Your task to perform on an android device: toggle improve location accuracy Image 0: 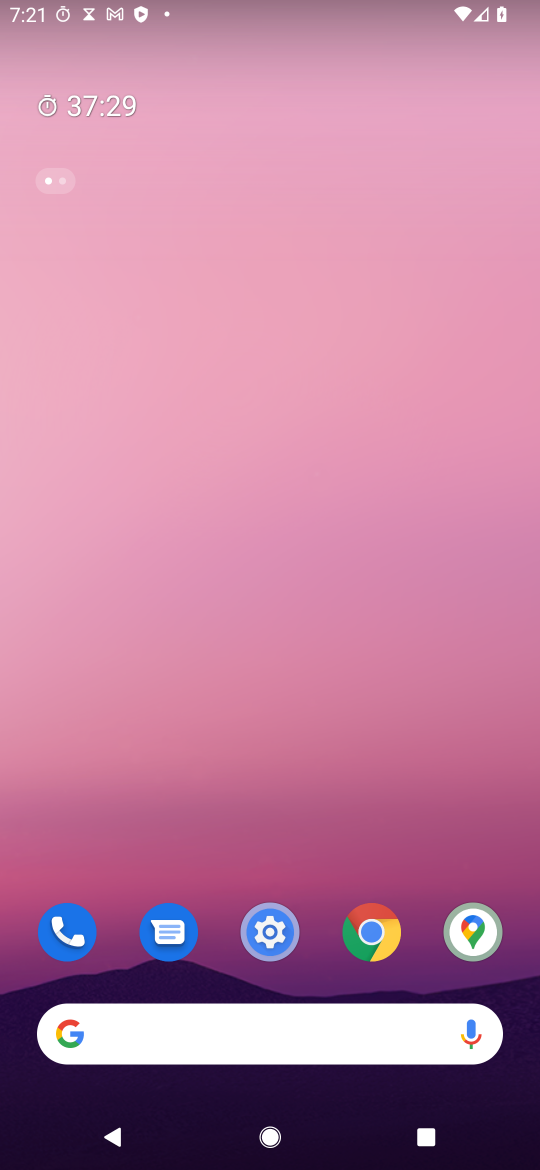
Step 0: drag from (386, 823) to (374, 22)
Your task to perform on an android device: toggle improve location accuracy Image 1: 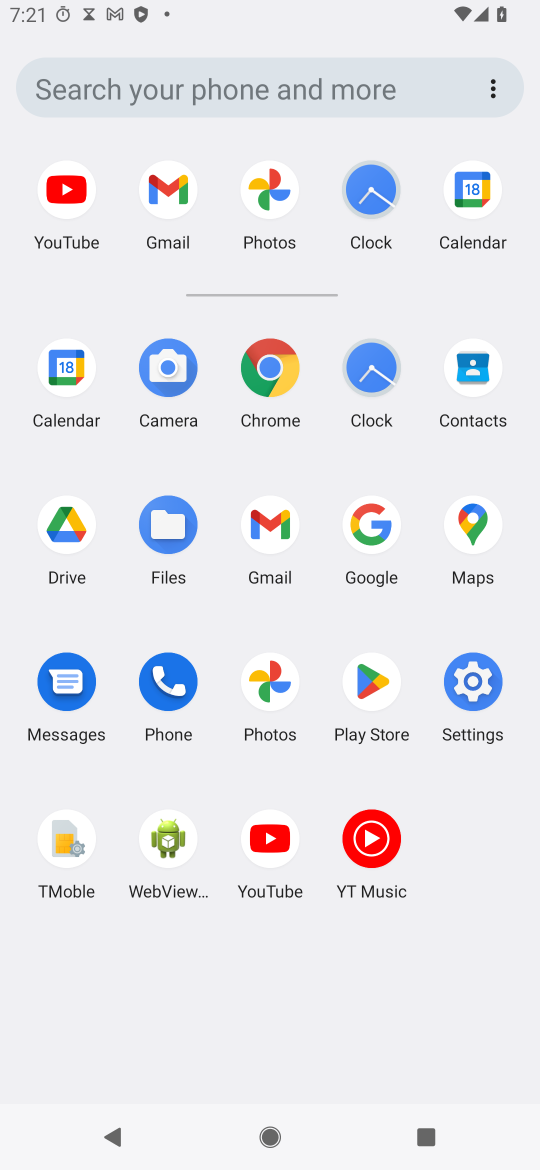
Step 1: click (476, 671)
Your task to perform on an android device: toggle improve location accuracy Image 2: 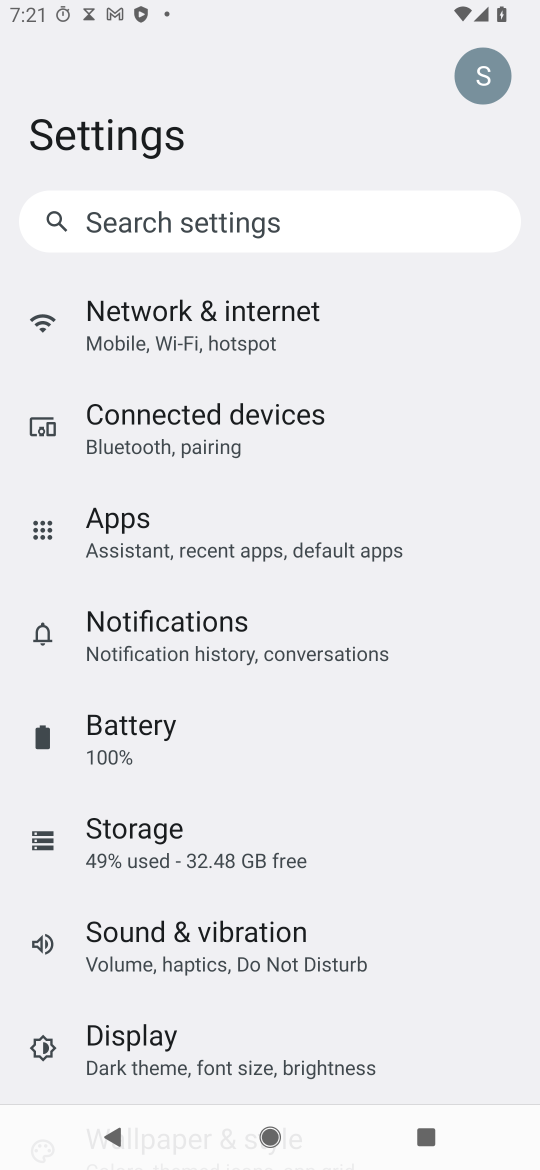
Step 2: drag from (309, 880) to (290, 396)
Your task to perform on an android device: toggle improve location accuracy Image 3: 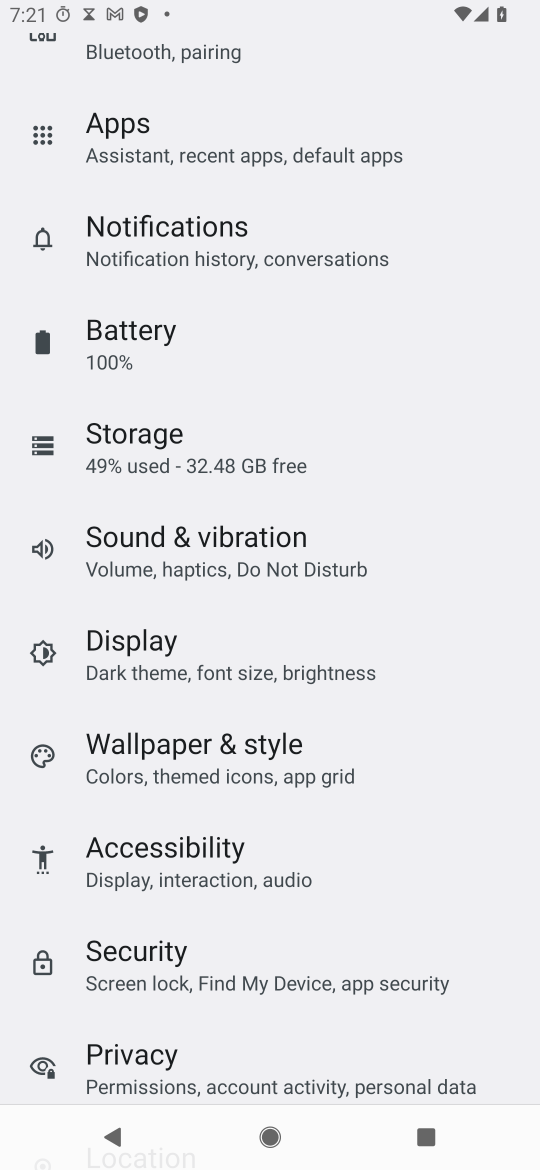
Step 3: drag from (232, 939) to (261, 311)
Your task to perform on an android device: toggle improve location accuracy Image 4: 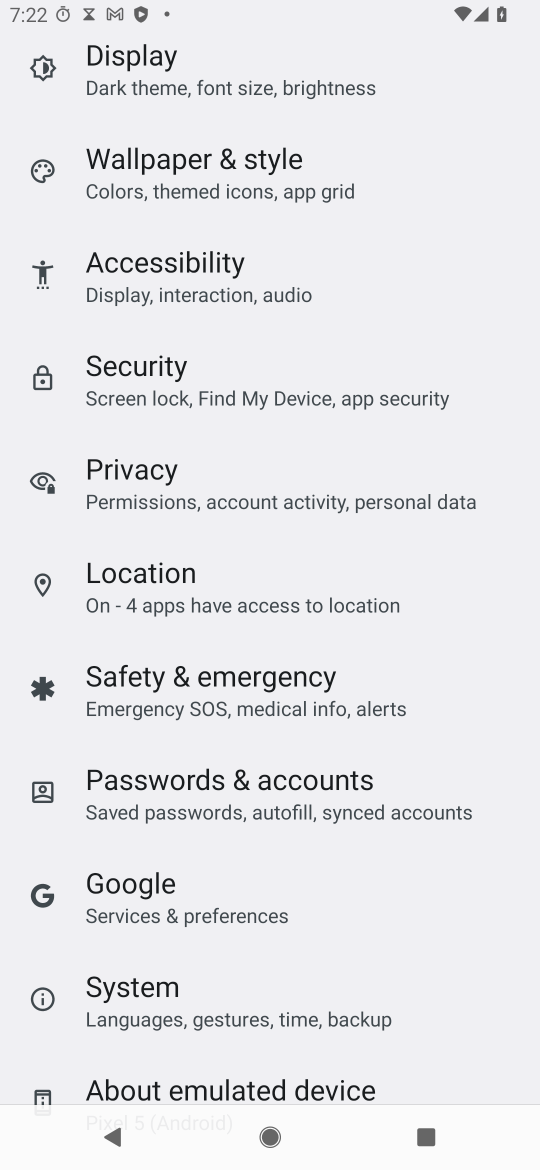
Step 4: drag from (285, 946) to (302, 266)
Your task to perform on an android device: toggle improve location accuracy Image 5: 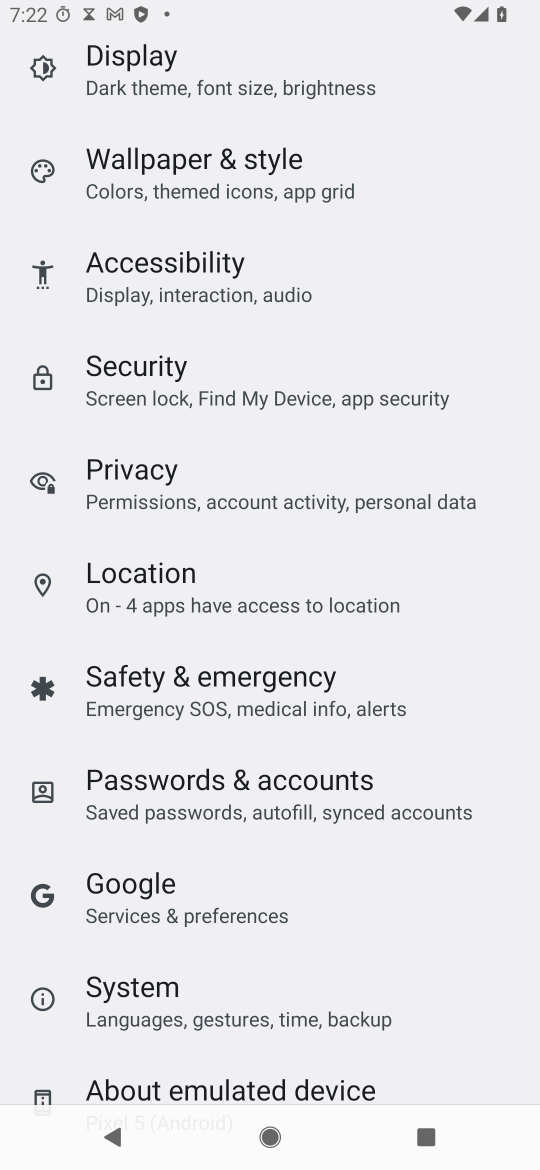
Step 5: click (177, 585)
Your task to perform on an android device: toggle improve location accuracy Image 6: 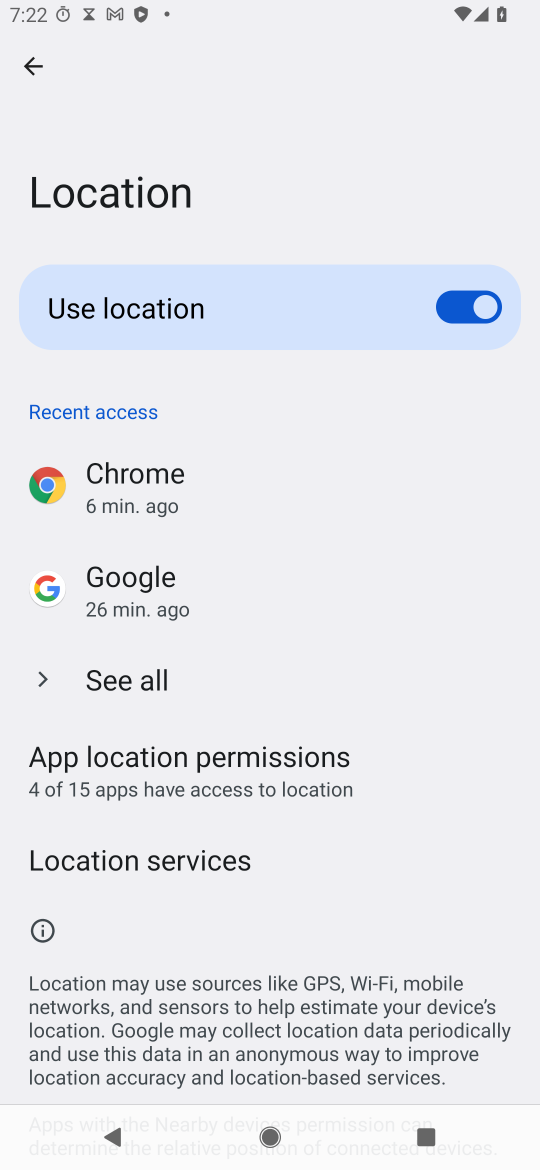
Step 6: click (117, 857)
Your task to perform on an android device: toggle improve location accuracy Image 7: 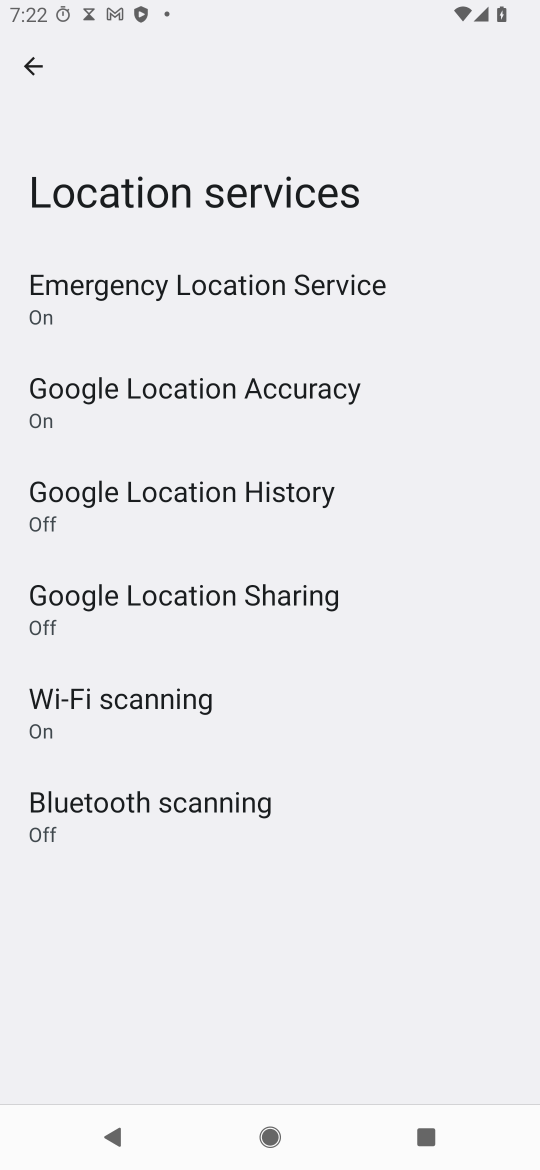
Step 7: click (299, 388)
Your task to perform on an android device: toggle improve location accuracy Image 8: 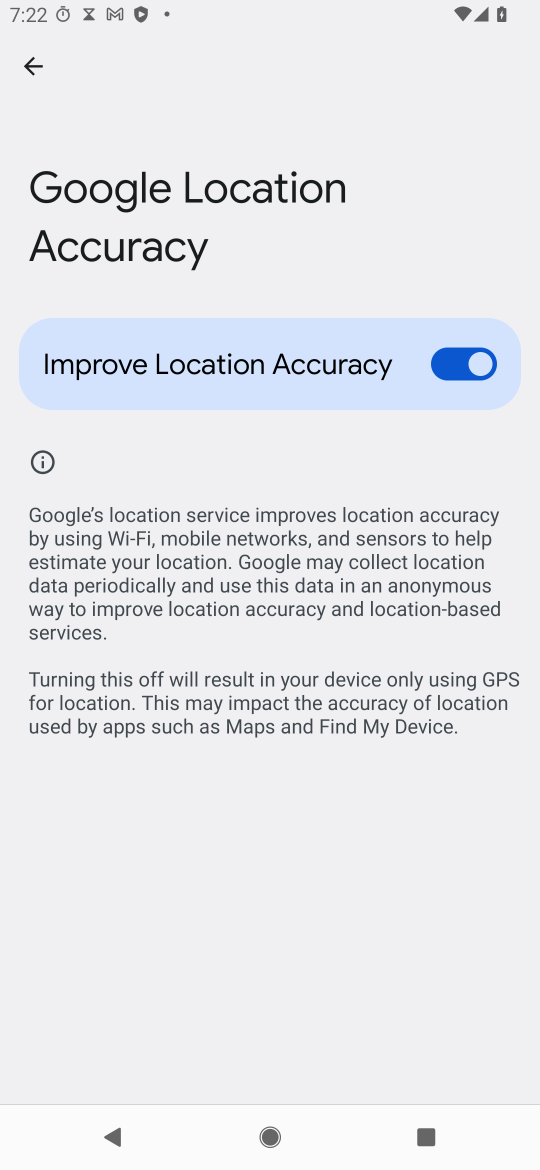
Step 8: click (340, 369)
Your task to perform on an android device: toggle improve location accuracy Image 9: 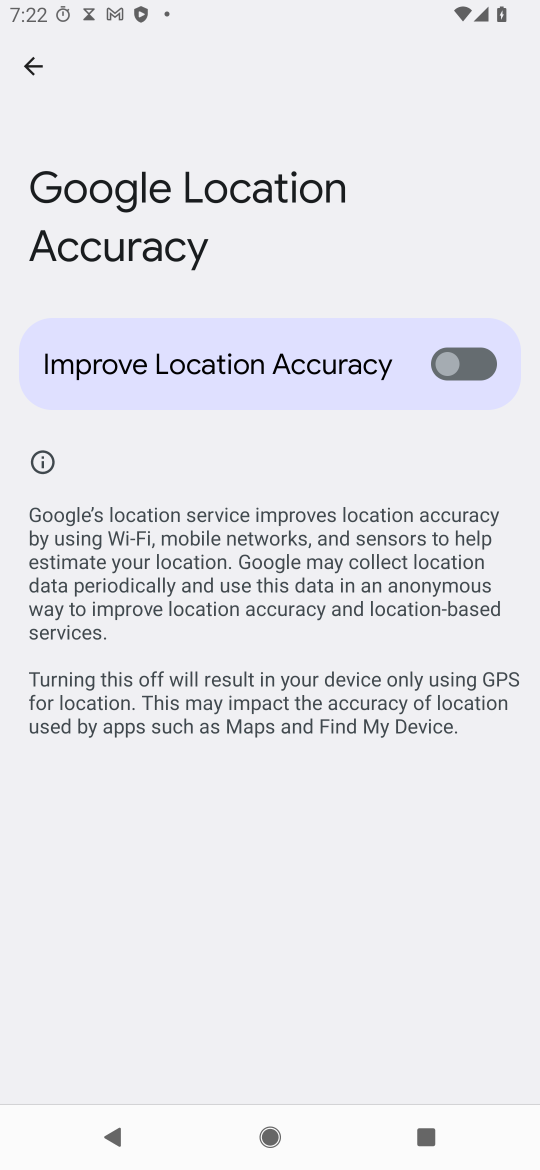
Step 9: task complete